Your task to perform on an android device: Check the weather Image 0: 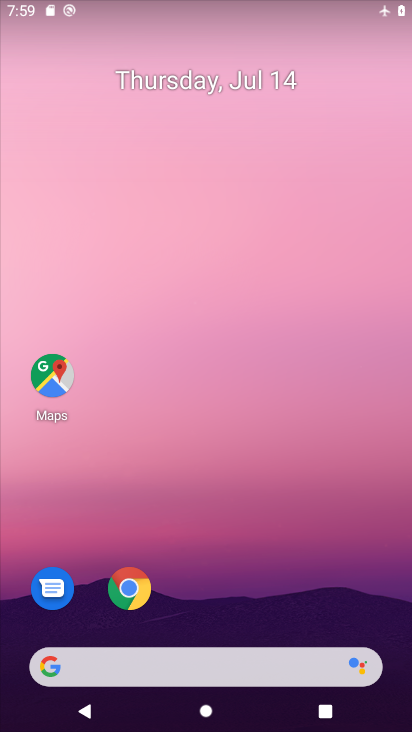
Step 0: click (191, 655)
Your task to perform on an android device: Check the weather Image 1: 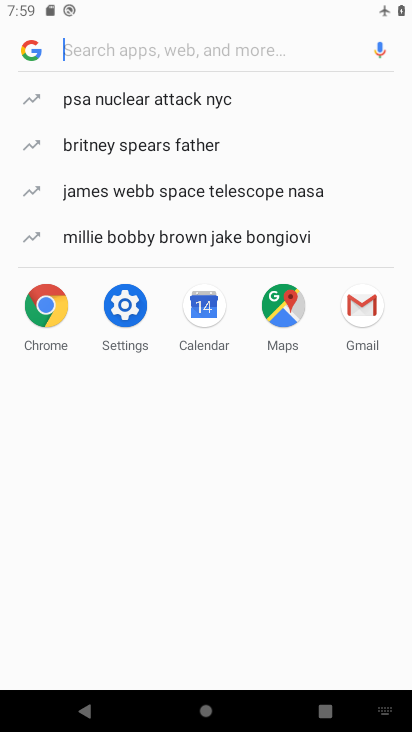
Step 1: type "weather"
Your task to perform on an android device: Check the weather Image 2: 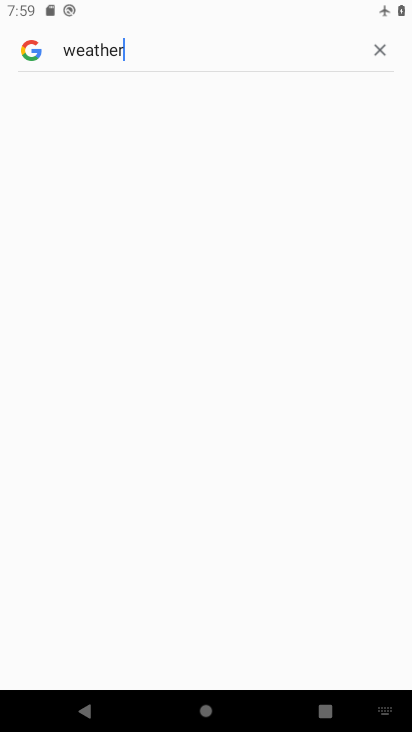
Step 2: task complete